Your task to perform on an android device: Go to wifi settings Image 0: 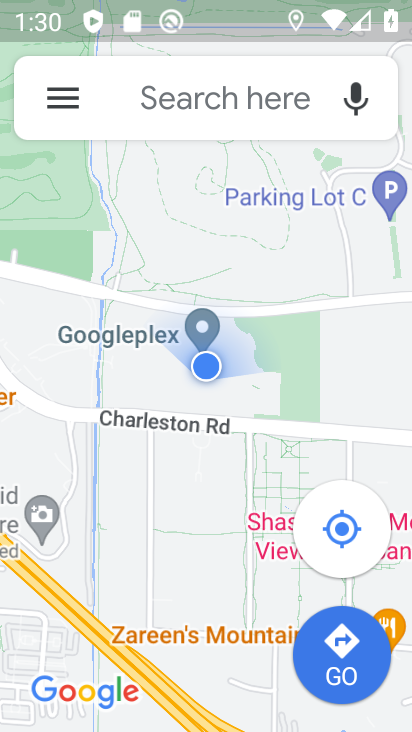
Step 0: press home button
Your task to perform on an android device: Go to wifi settings Image 1: 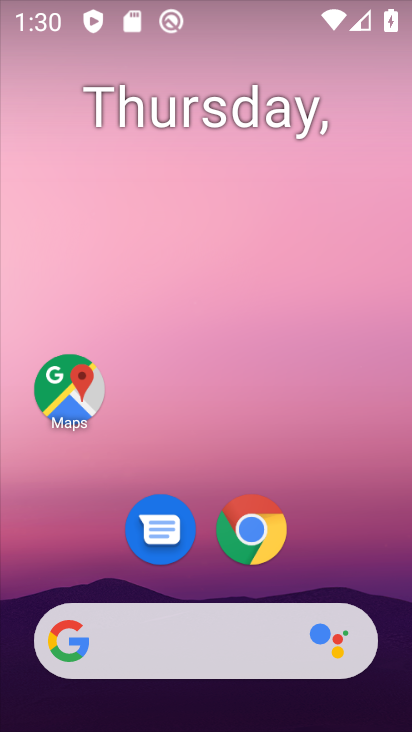
Step 1: drag from (222, 9) to (129, 398)
Your task to perform on an android device: Go to wifi settings Image 2: 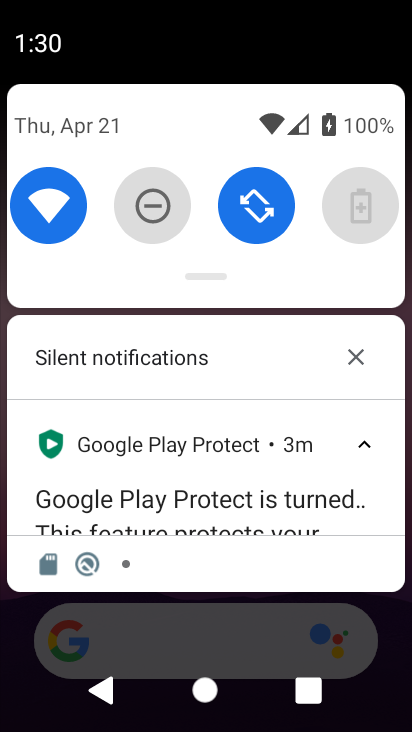
Step 2: click (57, 196)
Your task to perform on an android device: Go to wifi settings Image 3: 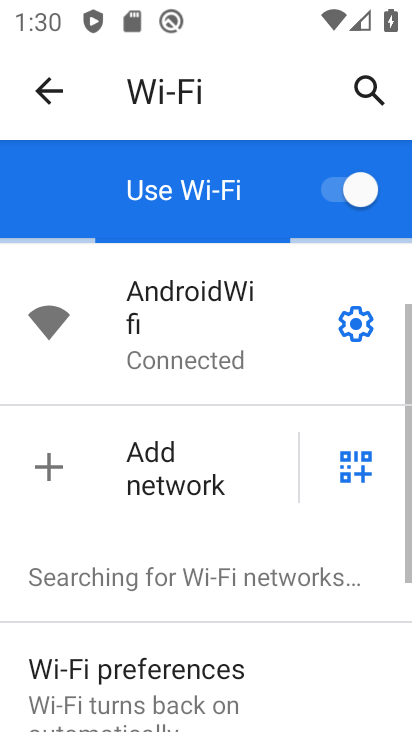
Step 3: click (355, 335)
Your task to perform on an android device: Go to wifi settings Image 4: 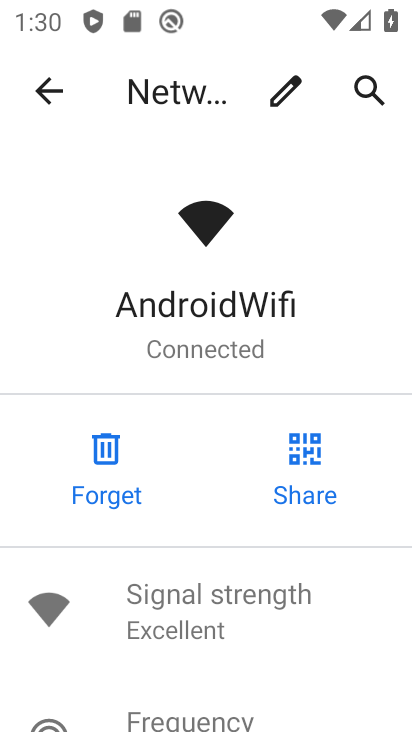
Step 4: task complete